Your task to perform on an android device: change the clock display to digital Image 0: 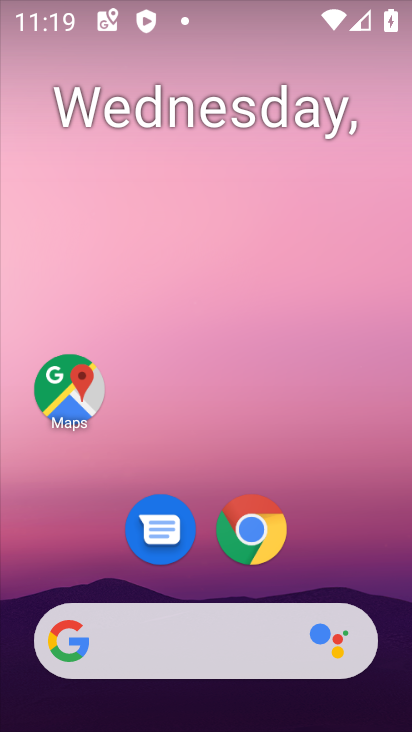
Step 0: drag from (202, 582) to (173, 41)
Your task to perform on an android device: change the clock display to digital Image 1: 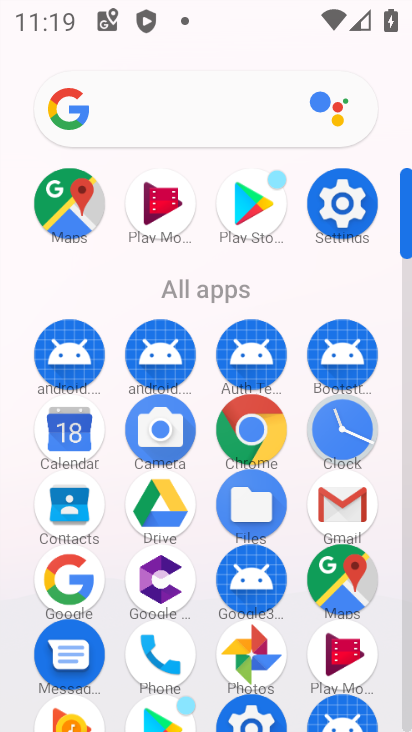
Step 1: click (339, 440)
Your task to perform on an android device: change the clock display to digital Image 2: 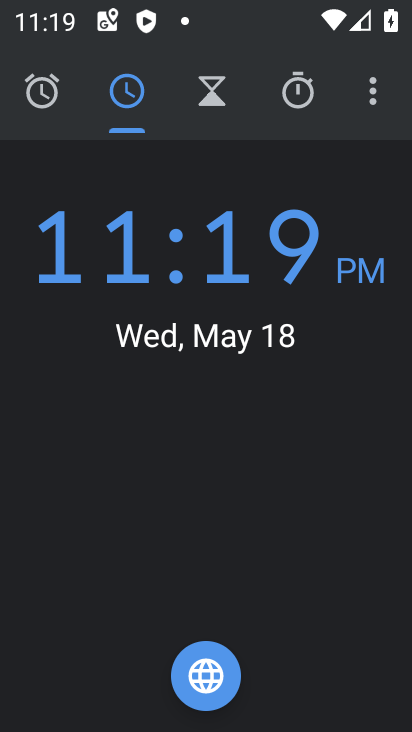
Step 2: click (368, 81)
Your task to perform on an android device: change the clock display to digital Image 3: 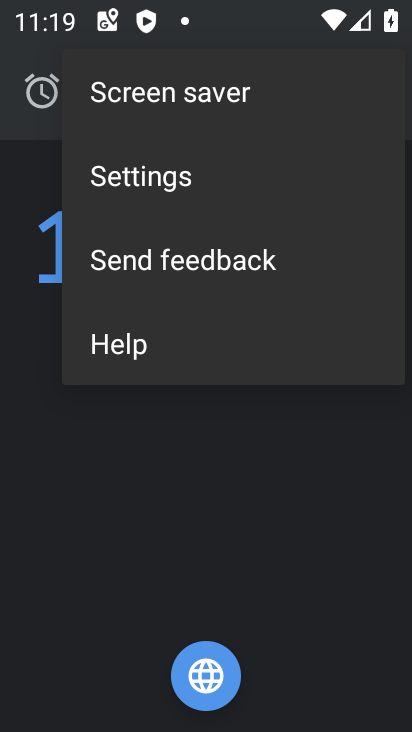
Step 3: click (139, 180)
Your task to perform on an android device: change the clock display to digital Image 4: 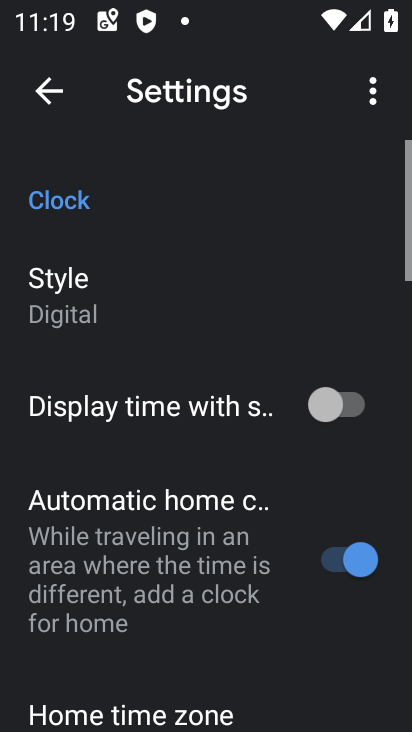
Step 4: click (105, 299)
Your task to perform on an android device: change the clock display to digital Image 5: 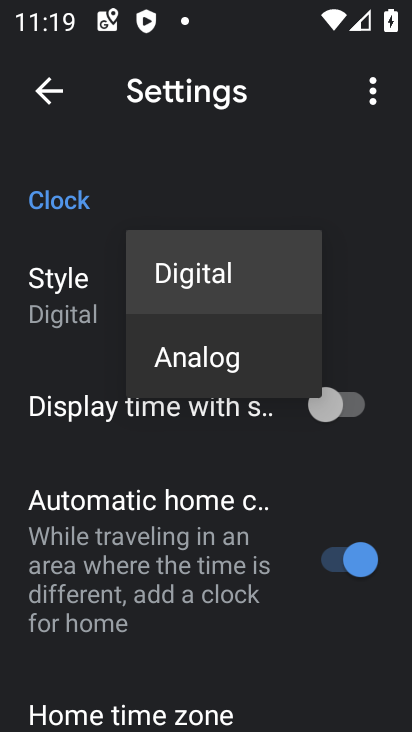
Step 5: click (178, 279)
Your task to perform on an android device: change the clock display to digital Image 6: 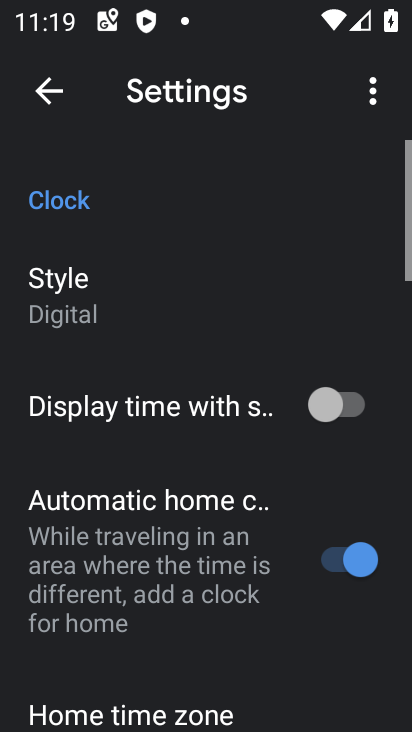
Step 6: task complete